Your task to perform on an android device: Open Youtube and go to the subscriptions tab Image 0: 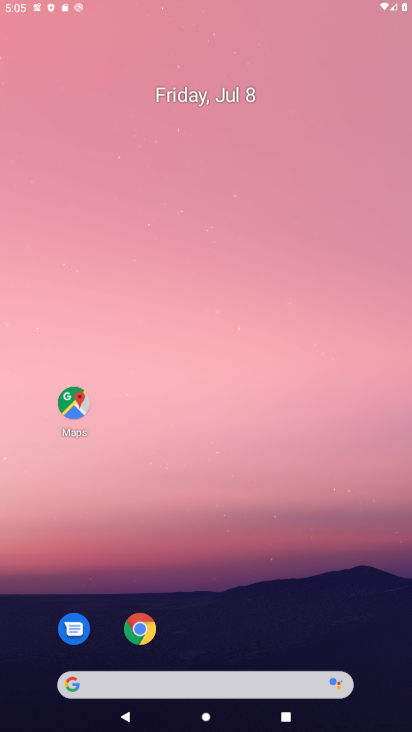
Step 0: press home button
Your task to perform on an android device: Open Youtube and go to the subscriptions tab Image 1: 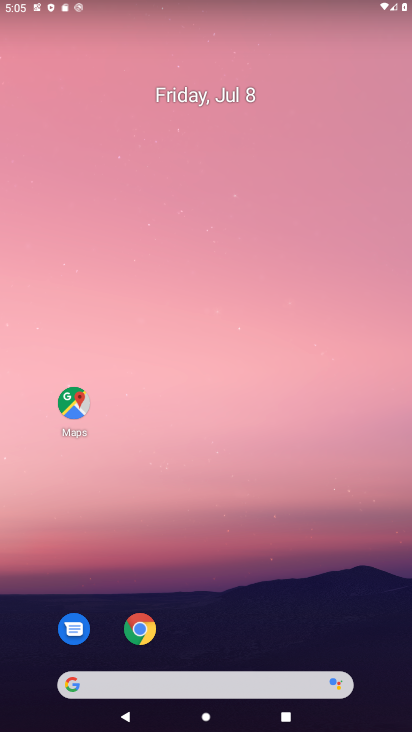
Step 1: drag from (255, 621) to (267, 56)
Your task to perform on an android device: Open Youtube and go to the subscriptions tab Image 2: 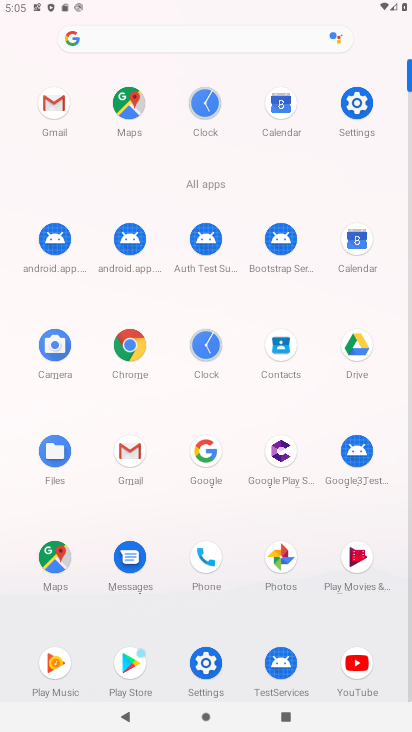
Step 2: click (363, 669)
Your task to perform on an android device: Open Youtube and go to the subscriptions tab Image 3: 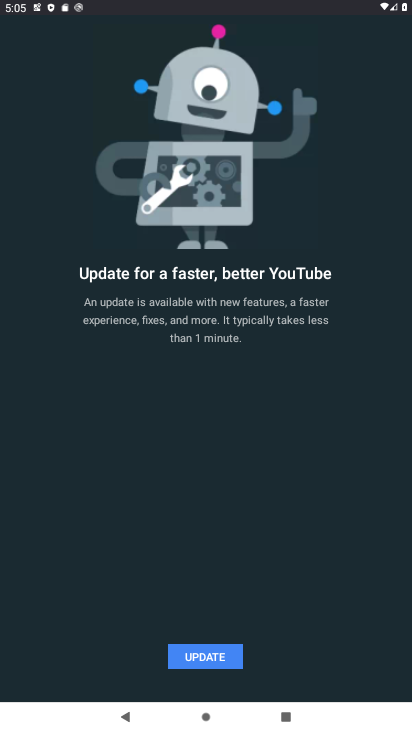
Step 3: click (201, 659)
Your task to perform on an android device: Open Youtube and go to the subscriptions tab Image 4: 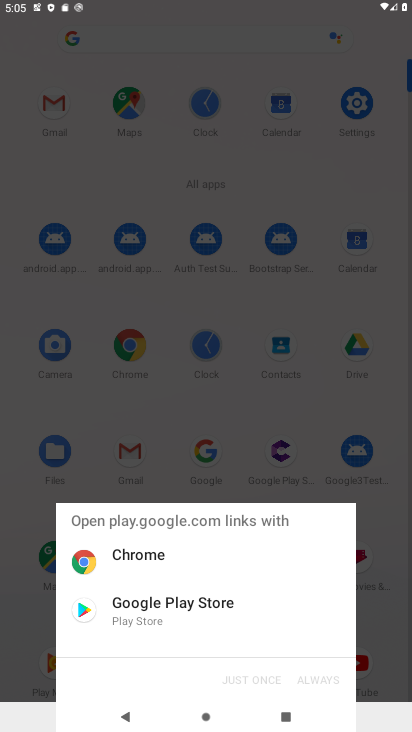
Step 4: click (191, 611)
Your task to perform on an android device: Open Youtube and go to the subscriptions tab Image 5: 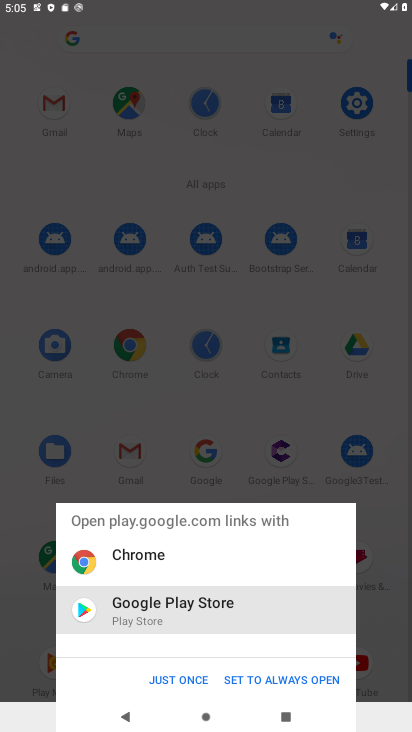
Step 5: click (178, 684)
Your task to perform on an android device: Open Youtube and go to the subscriptions tab Image 6: 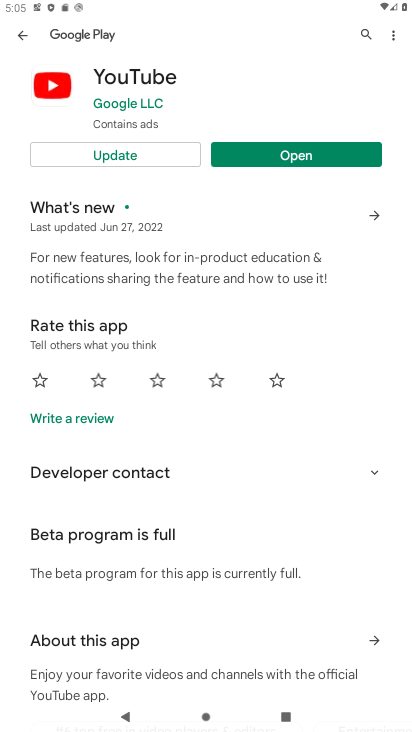
Step 6: click (135, 163)
Your task to perform on an android device: Open Youtube and go to the subscriptions tab Image 7: 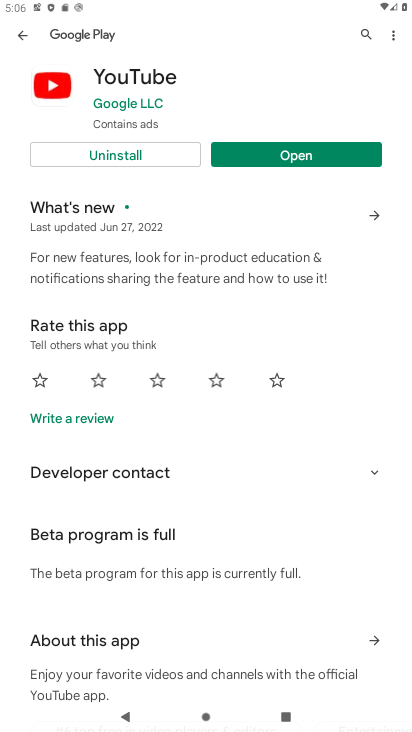
Step 7: click (254, 159)
Your task to perform on an android device: Open Youtube and go to the subscriptions tab Image 8: 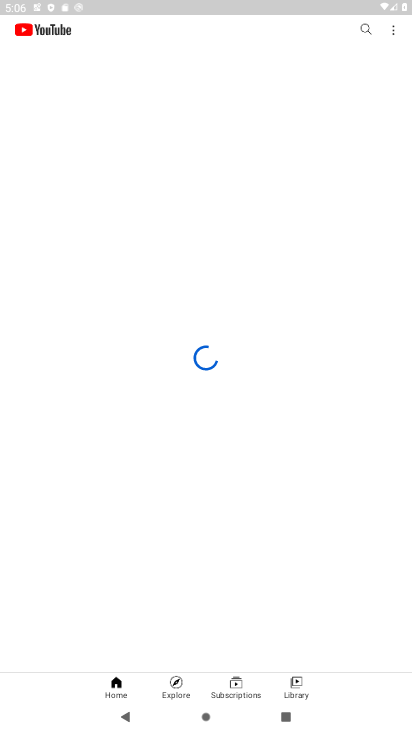
Step 8: click (239, 682)
Your task to perform on an android device: Open Youtube and go to the subscriptions tab Image 9: 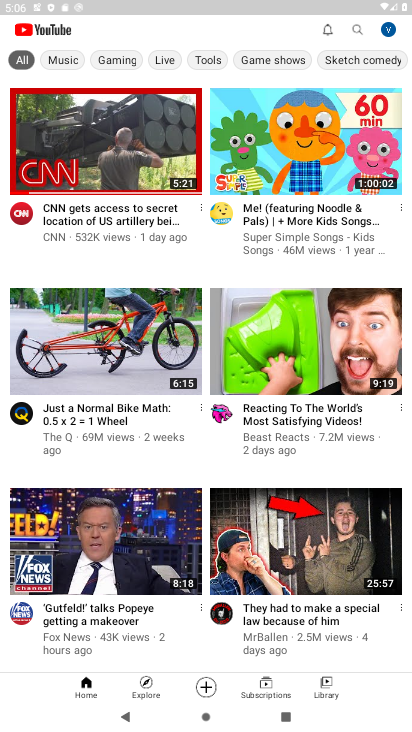
Step 9: click (269, 691)
Your task to perform on an android device: Open Youtube and go to the subscriptions tab Image 10: 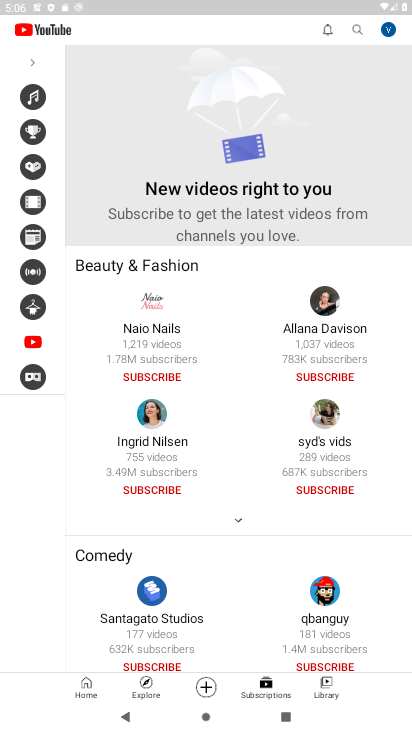
Step 10: task complete